Your task to perform on an android device: visit the assistant section in the google photos Image 0: 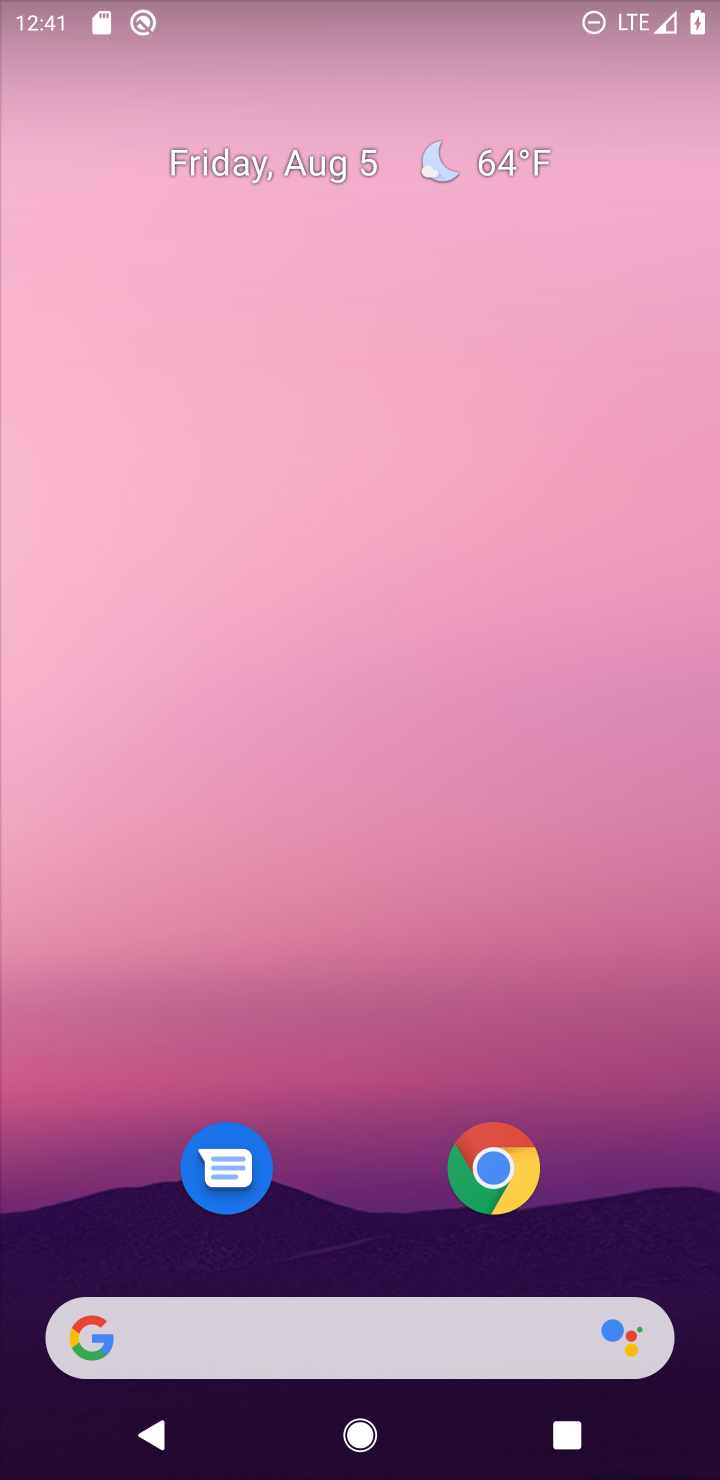
Step 0: press home button
Your task to perform on an android device: visit the assistant section in the google photos Image 1: 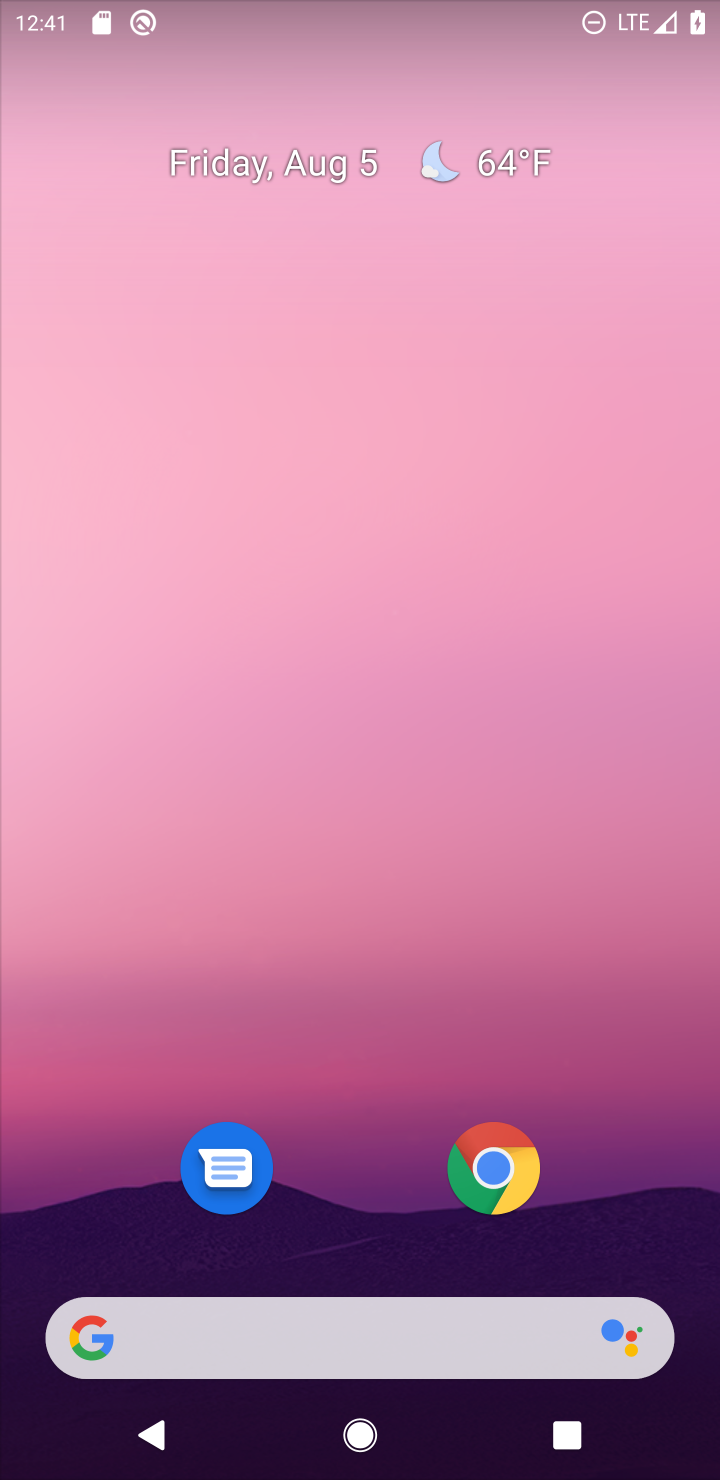
Step 1: drag from (693, 1198) to (177, 234)
Your task to perform on an android device: visit the assistant section in the google photos Image 2: 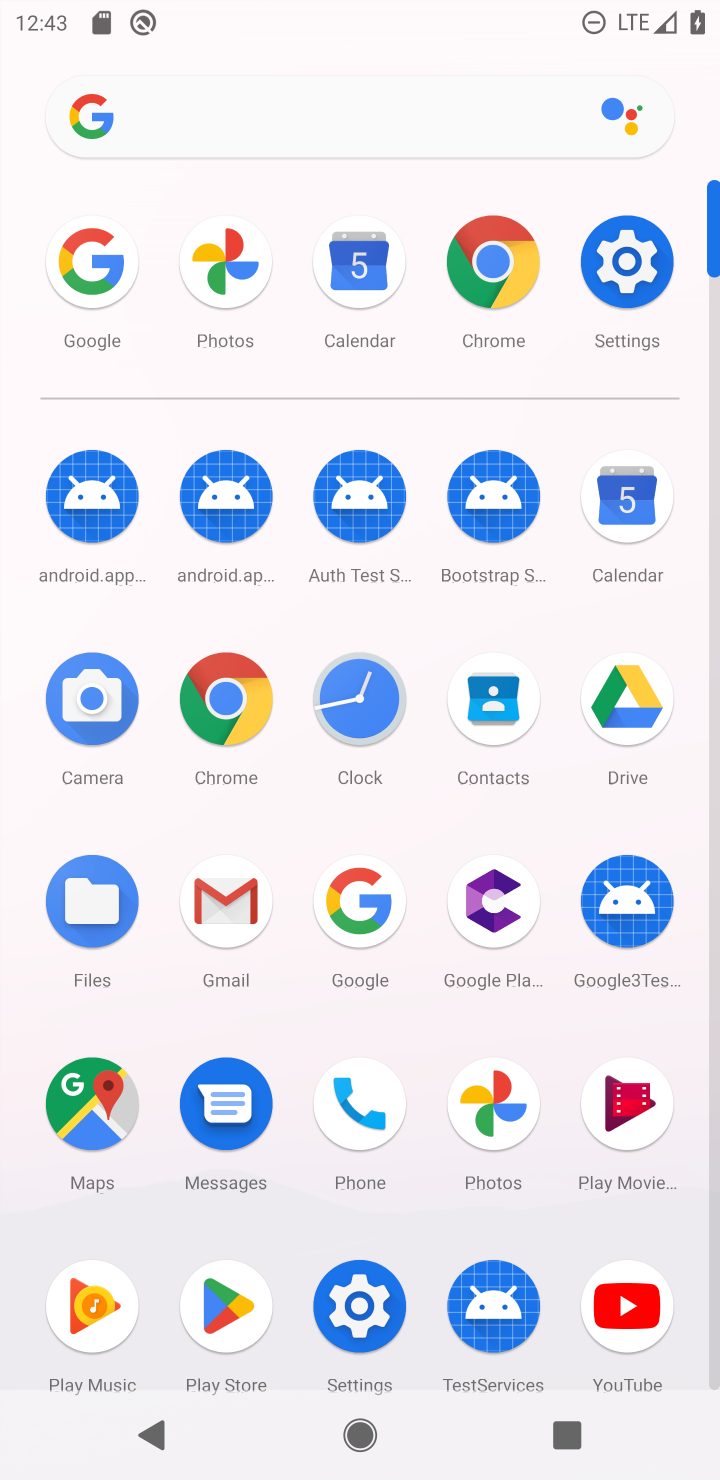
Step 2: click (494, 1116)
Your task to perform on an android device: visit the assistant section in the google photos Image 3: 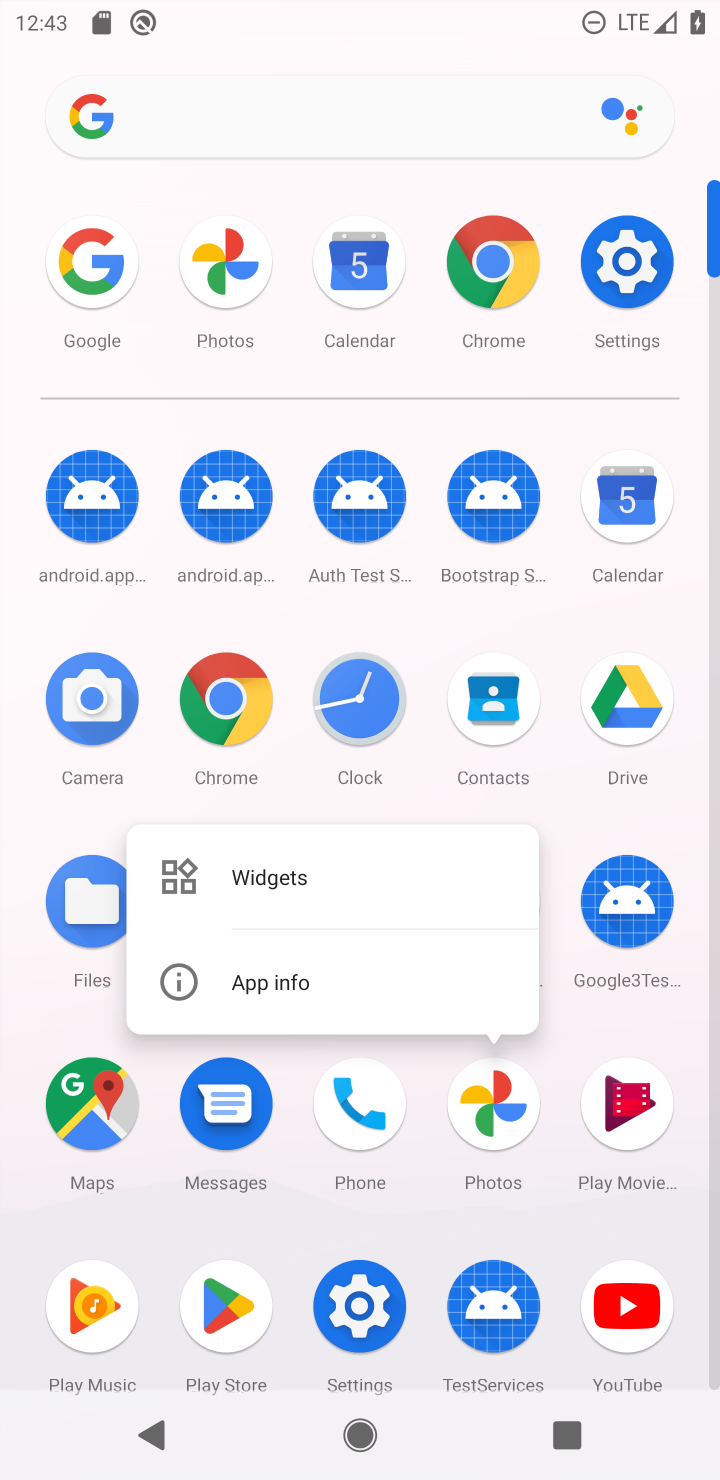
Step 3: click (494, 1116)
Your task to perform on an android device: visit the assistant section in the google photos Image 4: 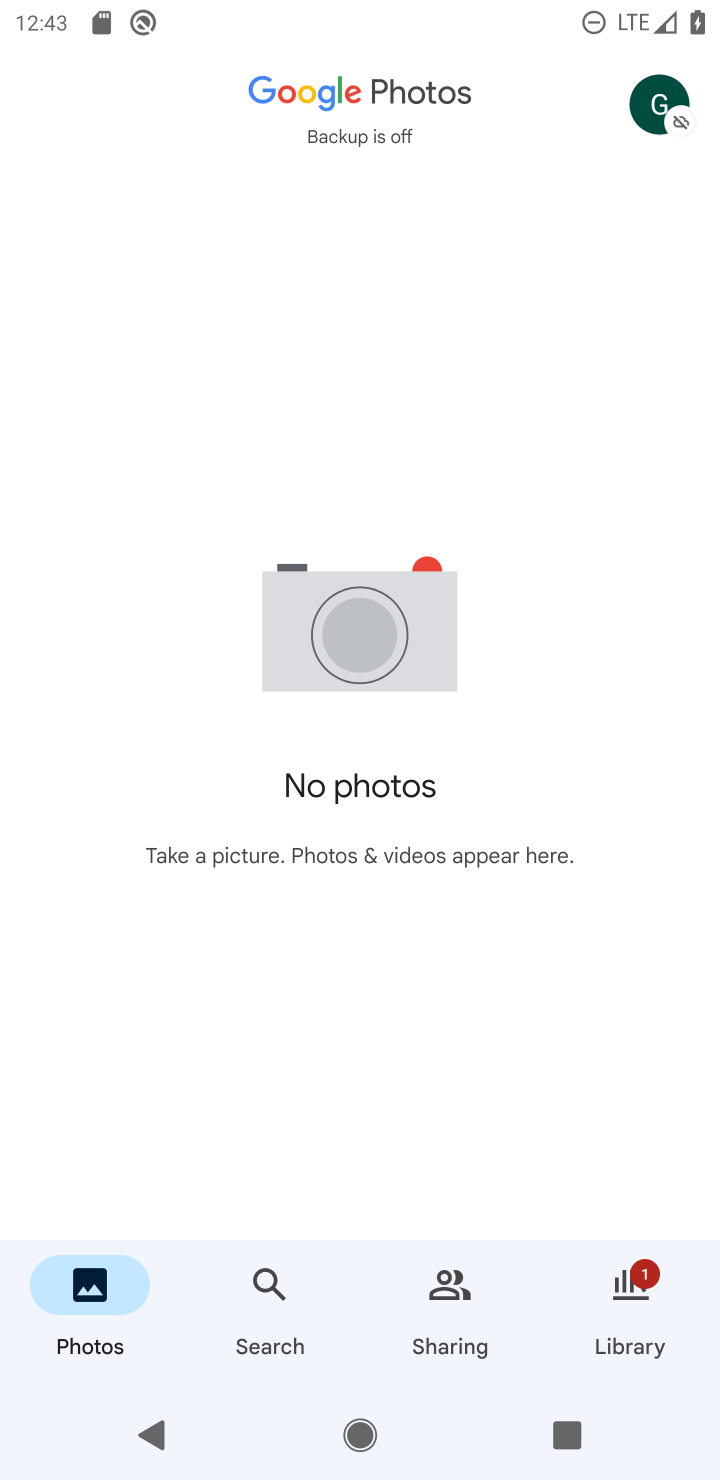
Step 4: task complete